Your task to perform on an android device: Open eBay Image 0: 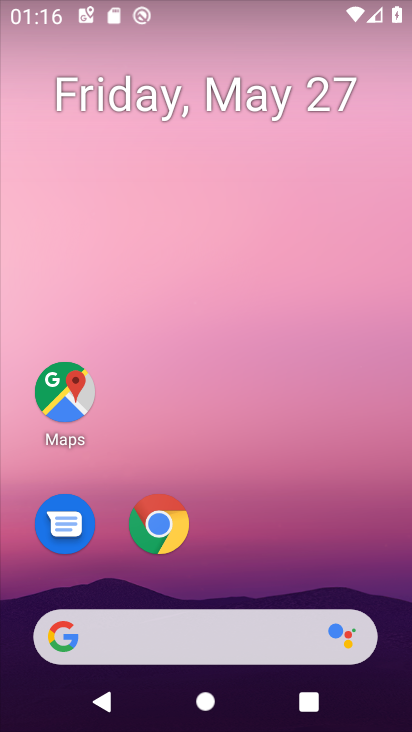
Step 0: click (252, 632)
Your task to perform on an android device: Open eBay Image 1: 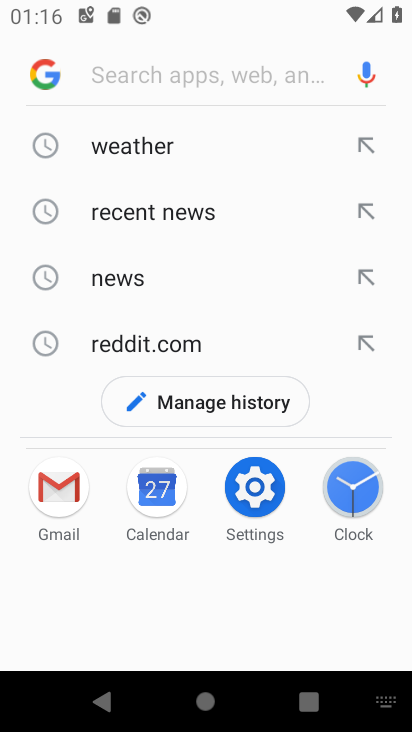
Step 1: type "ebay"
Your task to perform on an android device: Open eBay Image 2: 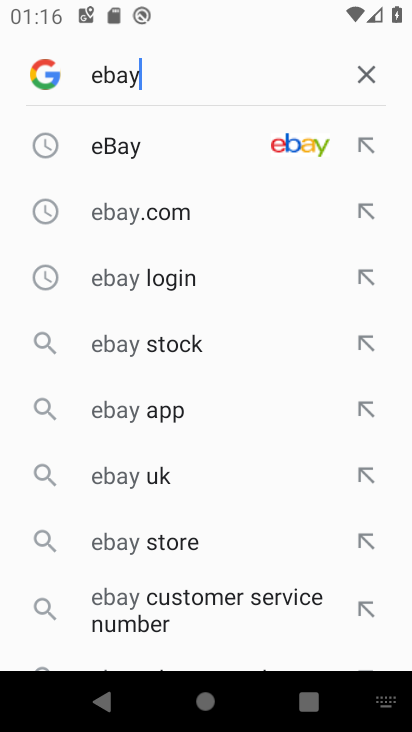
Step 2: click (115, 143)
Your task to perform on an android device: Open eBay Image 3: 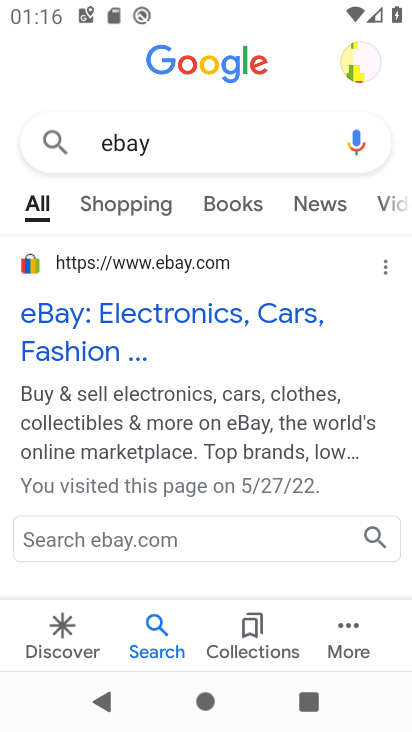
Step 3: click (64, 310)
Your task to perform on an android device: Open eBay Image 4: 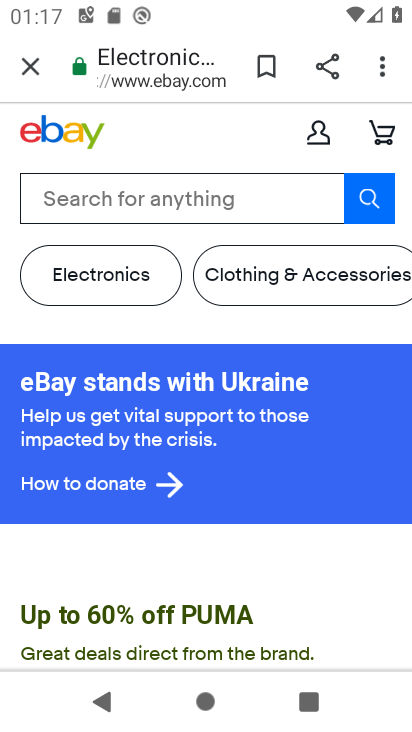
Step 4: task complete